Your task to perform on an android device: Open Google Maps Image 0: 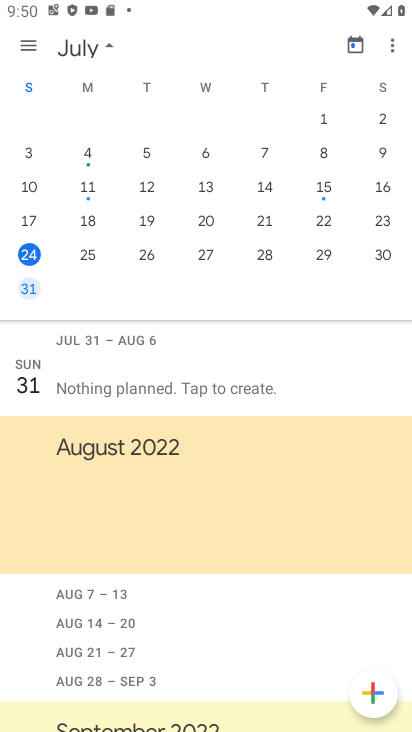
Step 0: press home button
Your task to perform on an android device: Open Google Maps Image 1: 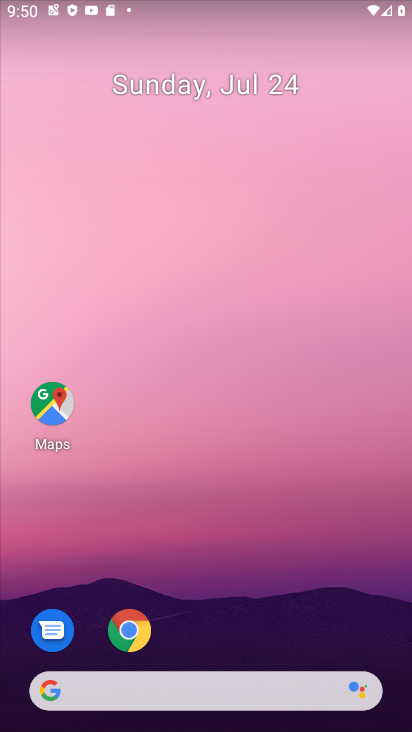
Step 1: click (65, 405)
Your task to perform on an android device: Open Google Maps Image 2: 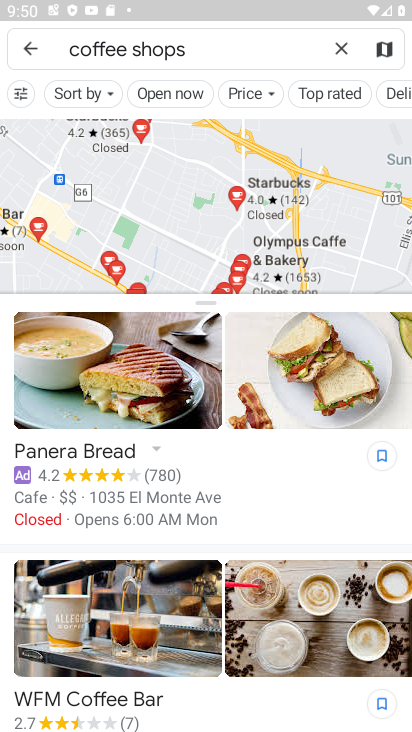
Step 2: task complete